Your task to perform on an android device: What's the latest news in cosmology? Image 0: 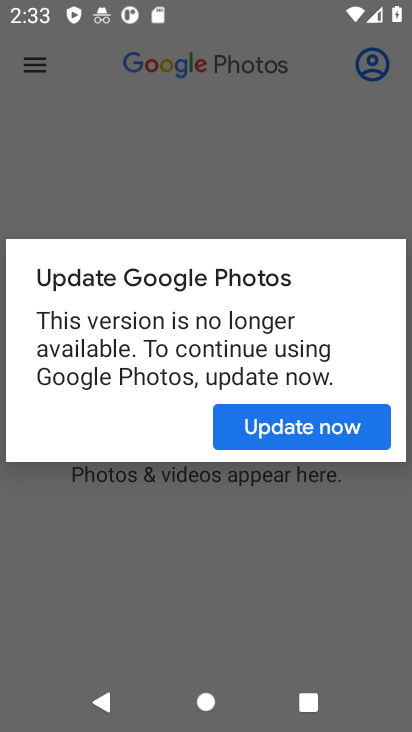
Step 0: press home button
Your task to perform on an android device: What's the latest news in cosmology? Image 1: 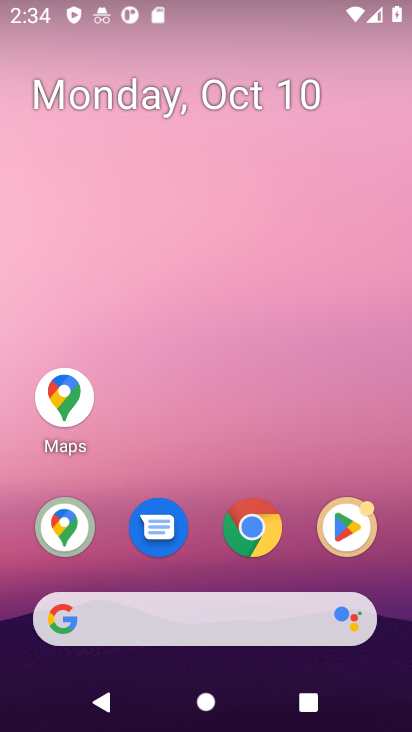
Step 1: click (251, 529)
Your task to perform on an android device: What's the latest news in cosmology? Image 2: 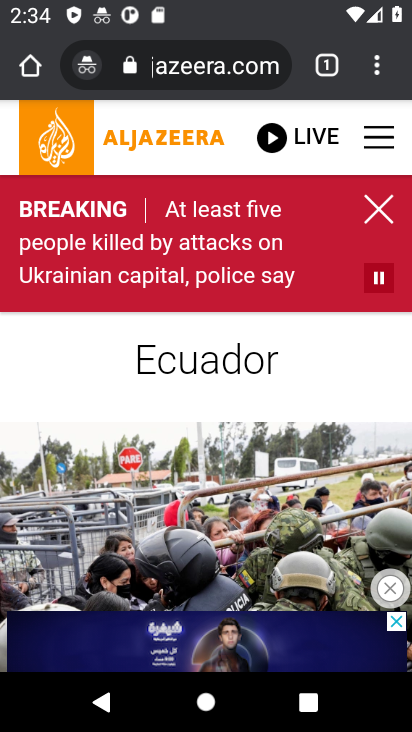
Step 2: click (230, 72)
Your task to perform on an android device: What's the latest news in cosmology? Image 3: 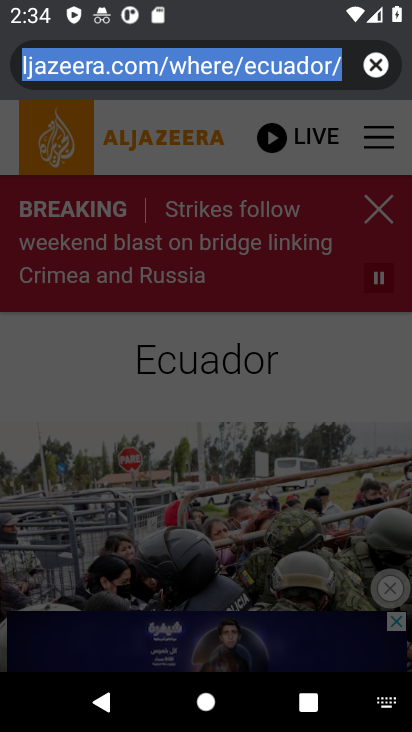
Step 3: click (377, 68)
Your task to perform on an android device: What's the latest news in cosmology? Image 4: 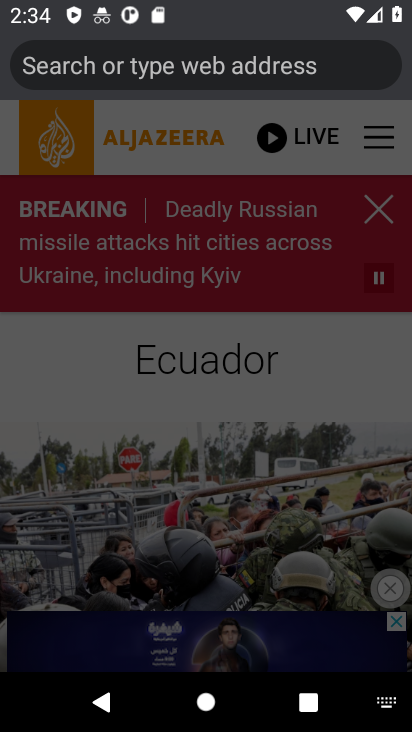
Step 4: type "latest news in cosmology"
Your task to perform on an android device: What's the latest news in cosmology? Image 5: 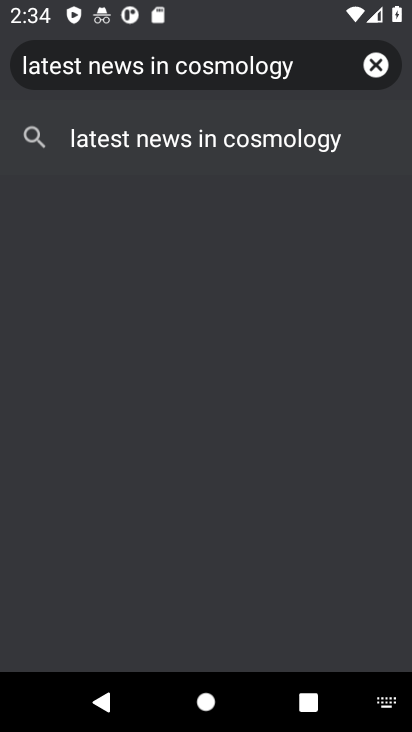
Step 5: click (120, 143)
Your task to perform on an android device: What's the latest news in cosmology? Image 6: 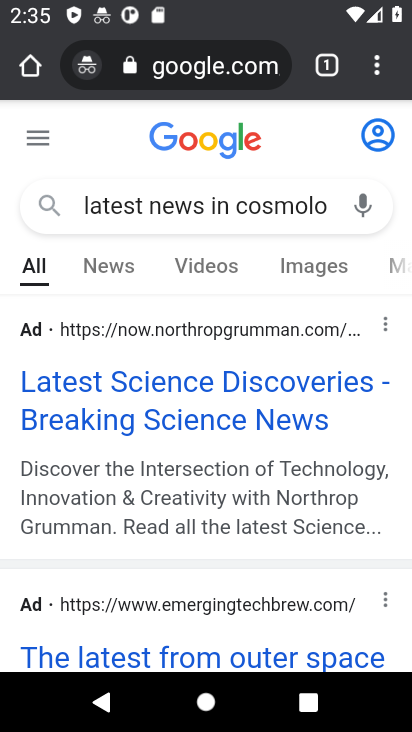
Step 6: drag from (213, 566) to (314, 375)
Your task to perform on an android device: What's the latest news in cosmology? Image 7: 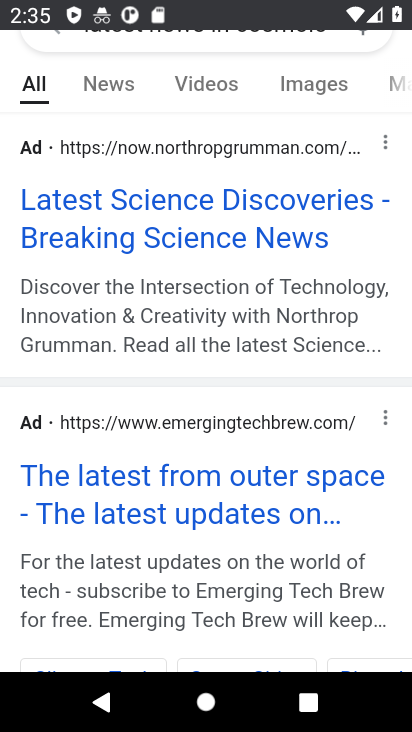
Step 7: drag from (217, 566) to (309, 368)
Your task to perform on an android device: What's the latest news in cosmology? Image 8: 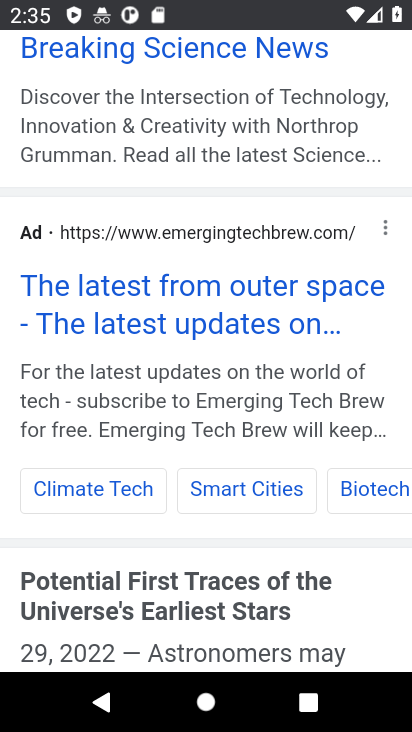
Step 8: drag from (215, 605) to (304, 388)
Your task to perform on an android device: What's the latest news in cosmology? Image 9: 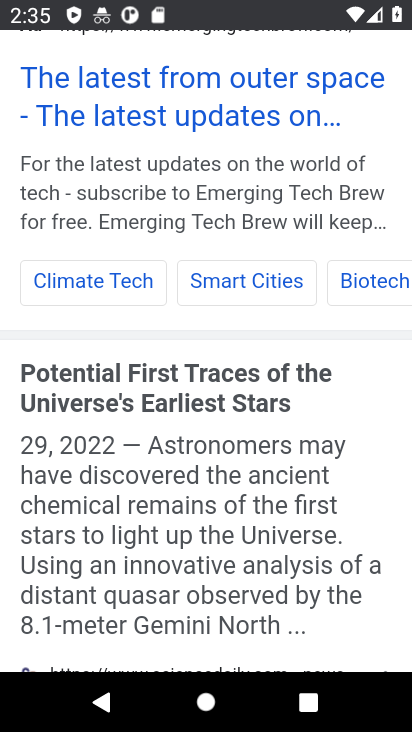
Step 9: drag from (229, 591) to (319, 442)
Your task to perform on an android device: What's the latest news in cosmology? Image 10: 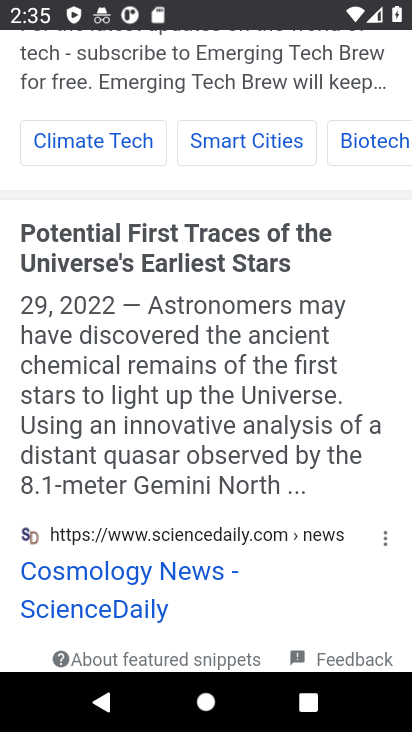
Step 10: drag from (143, 594) to (234, 425)
Your task to perform on an android device: What's the latest news in cosmology? Image 11: 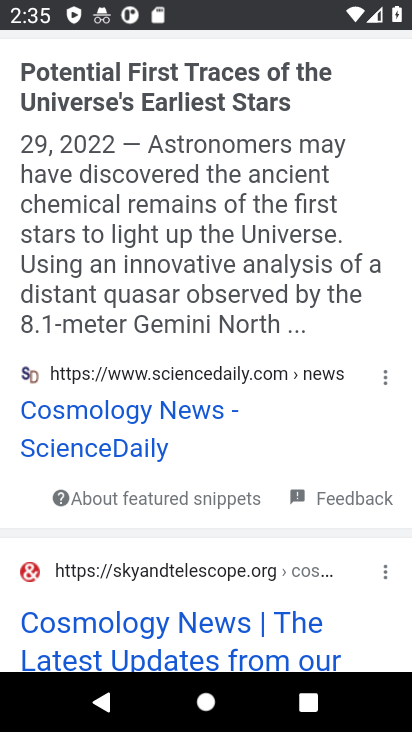
Step 11: drag from (226, 655) to (323, 469)
Your task to perform on an android device: What's the latest news in cosmology? Image 12: 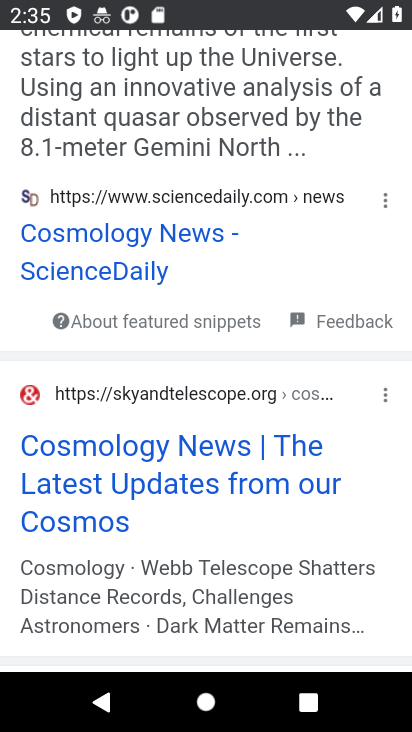
Step 12: click (265, 488)
Your task to perform on an android device: What's the latest news in cosmology? Image 13: 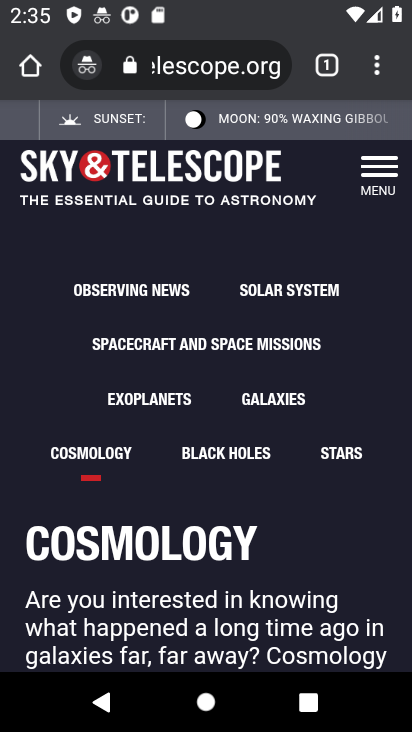
Step 13: task complete